Your task to perform on an android device: Open the web browser Image 0: 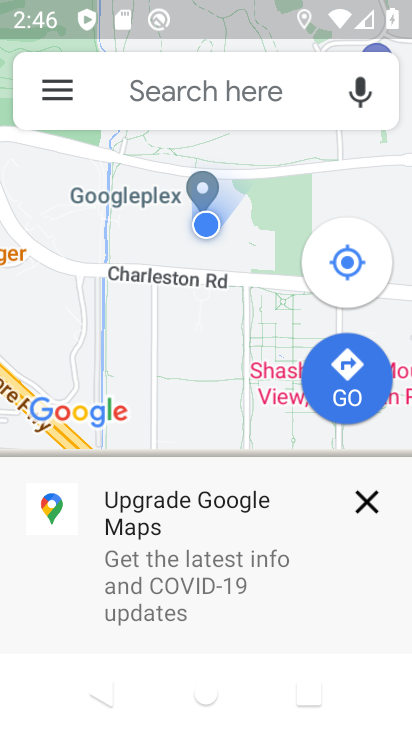
Step 0: press back button
Your task to perform on an android device: Open the web browser Image 1: 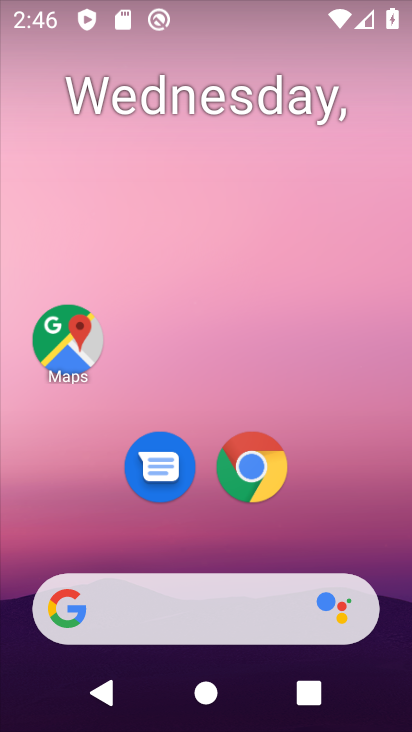
Step 1: drag from (36, 574) to (126, 141)
Your task to perform on an android device: Open the web browser Image 2: 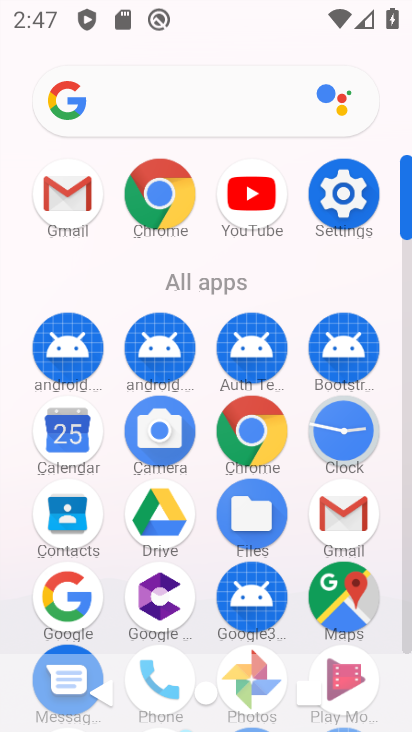
Step 2: click (65, 604)
Your task to perform on an android device: Open the web browser Image 3: 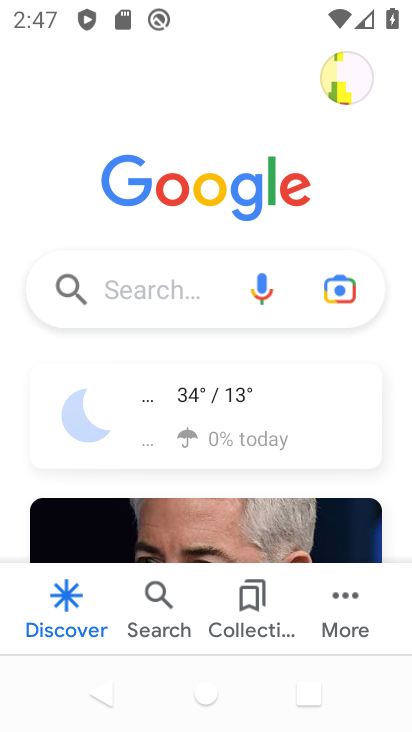
Step 3: task complete